Your task to perform on an android device: toggle pop-ups in chrome Image 0: 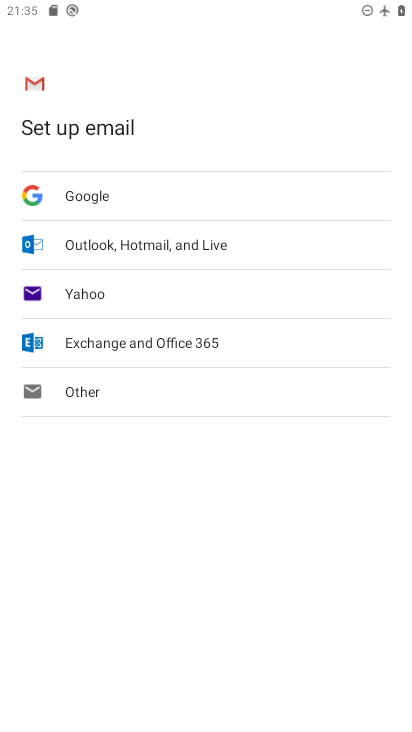
Step 0: press home button
Your task to perform on an android device: toggle pop-ups in chrome Image 1: 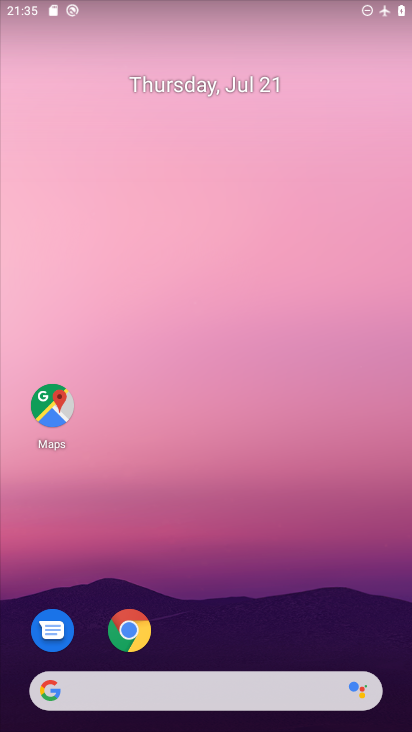
Step 1: drag from (250, 633) to (324, 112)
Your task to perform on an android device: toggle pop-ups in chrome Image 2: 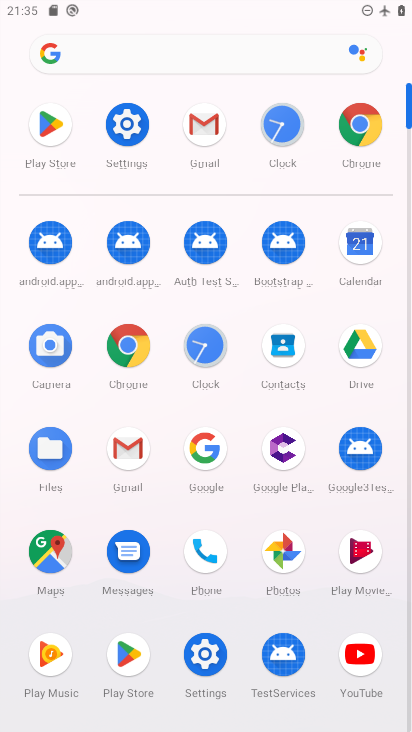
Step 2: click (376, 127)
Your task to perform on an android device: toggle pop-ups in chrome Image 3: 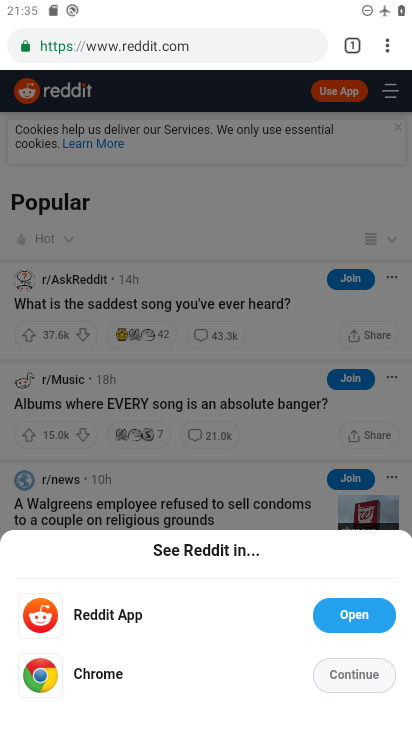
Step 3: click (387, 43)
Your task to perform on an android device: toggle pop-ups in chrome Image 4: 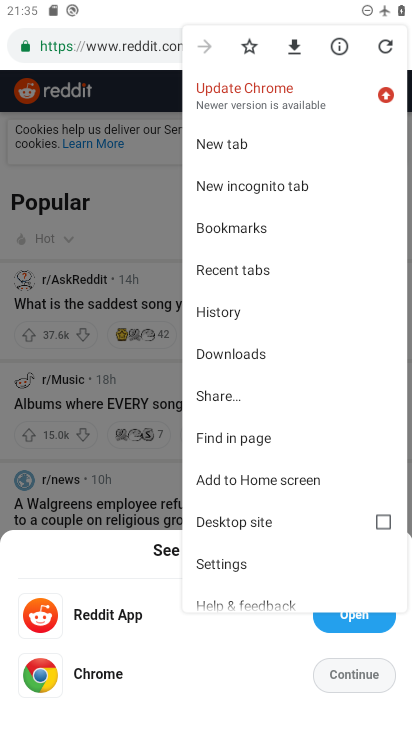
Step 4: click (232, 560)
Your task to perform on an android device: toggle pop-ups in chrome Image 5: 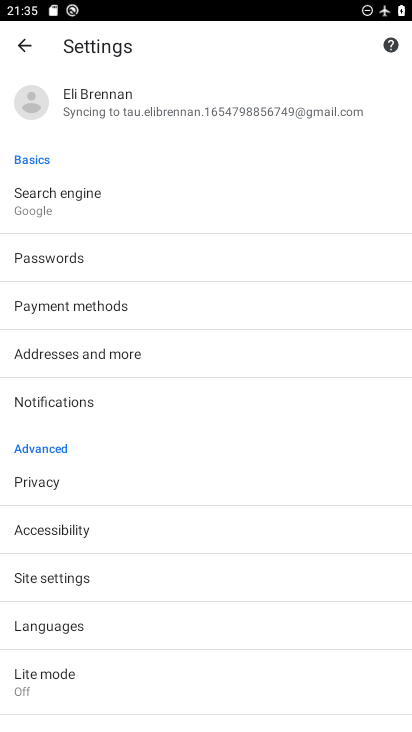
Step 5: click (67, 590)
Your task to perform on an android device: toggle pop-ups in chrome Image 6: 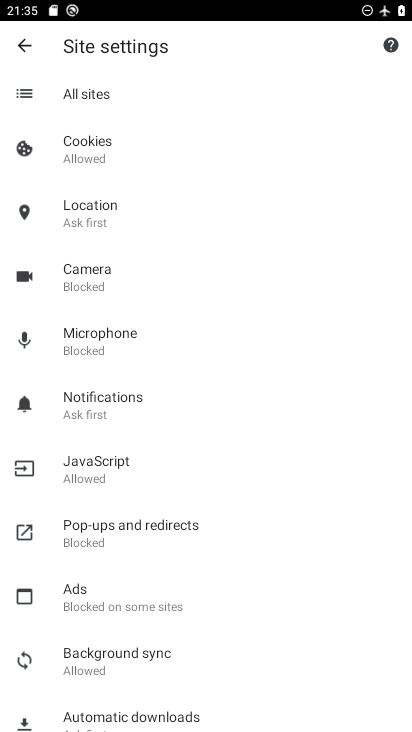
Step 6: click (112, 519)
Your task to perform on an android device: toggle pop-ups in chrome Image 7: 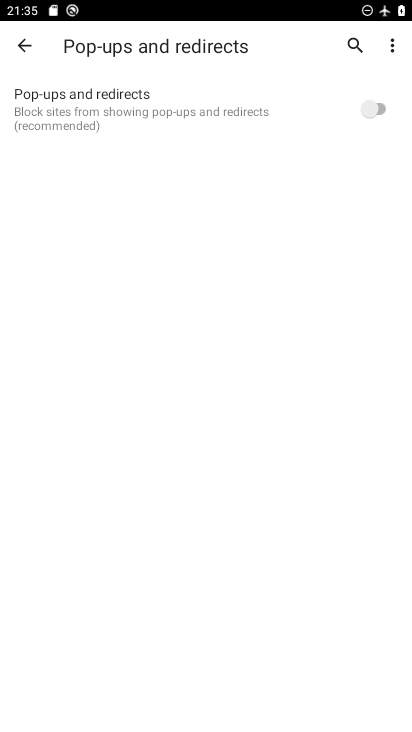
Step 7: click (386, 111)
Your task to perform on an android device: toggle pop-ups in chrome Image 8: 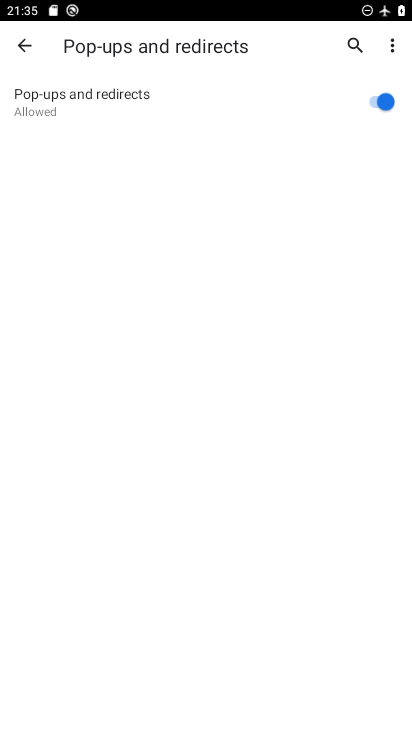
Step 8: task complete